Your task to perform on an android device: turn notification dots on Image 0: 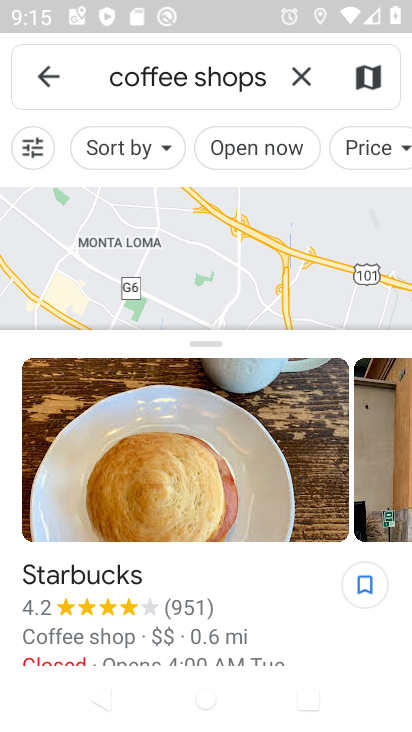
Step 0: press home button
Your task to perform on an android device: turn notification dots on Image 1: 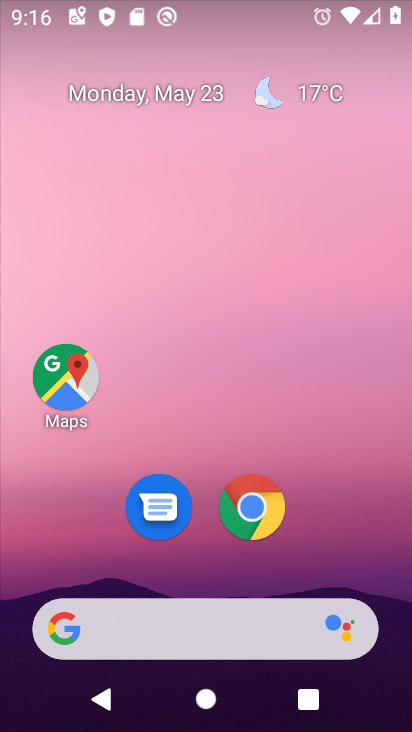
Step 1: drag from (361, 588) to (345, 10)
Your task to perform on an android device: turn notification dots on Image 2: 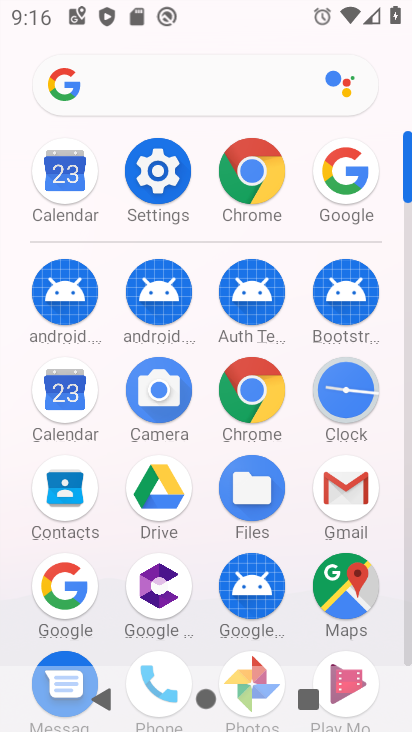
Step 2: click (160, 166)
Your task to perform on an android device: turn notification dots on Image 3: 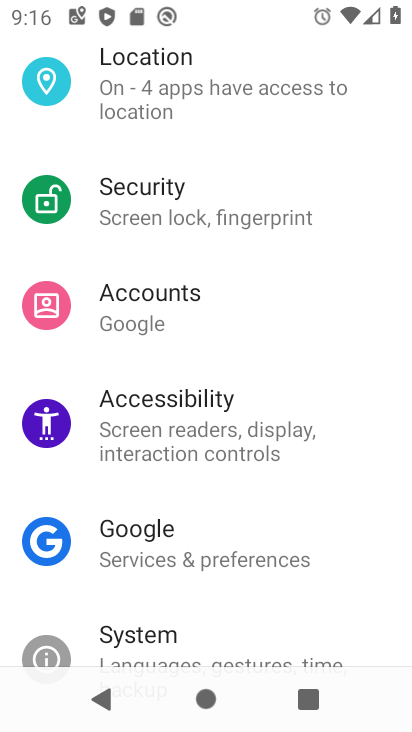
Step 3: drag from (246, 198) to (246, 544)
Your task to perform on an android device: turn notification dots on Image 4: 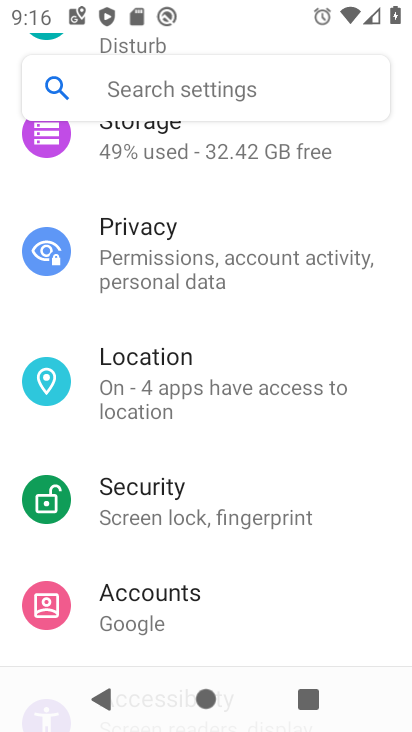
Step 4: drag from (226, 213) to (224, 612)
Your task to perform on an android device: turn notification dots on Image 5: 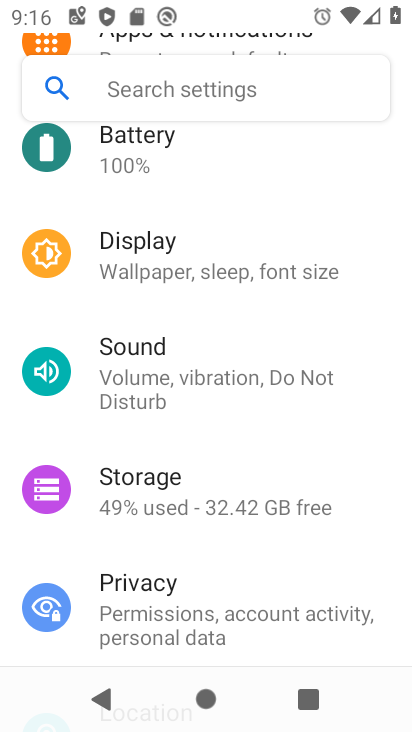
Step 5: drag from (207, 258) to (219, 609)
Your task to perform on an android device: turn notification dots on Image 6: 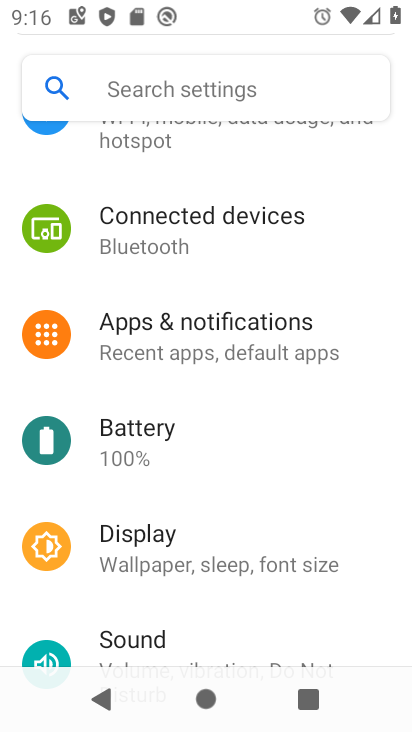
Step 6: click (182, 349)
Your task to perform on an android device: turn notification dots on Image 7: 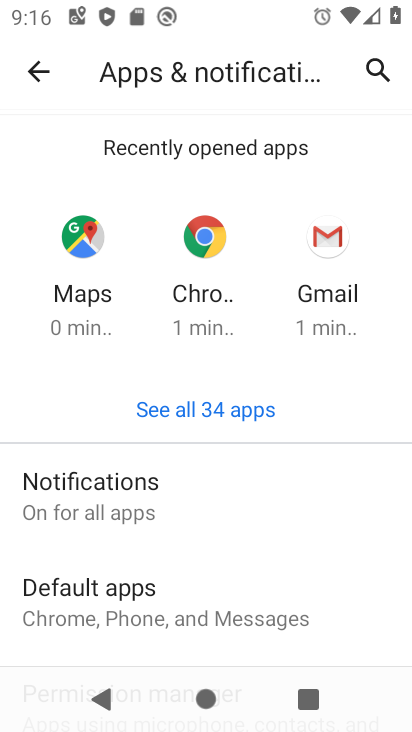
Step 7: click (89, 500)
Your task to perform on an android device: turn notification dots on Image 8: 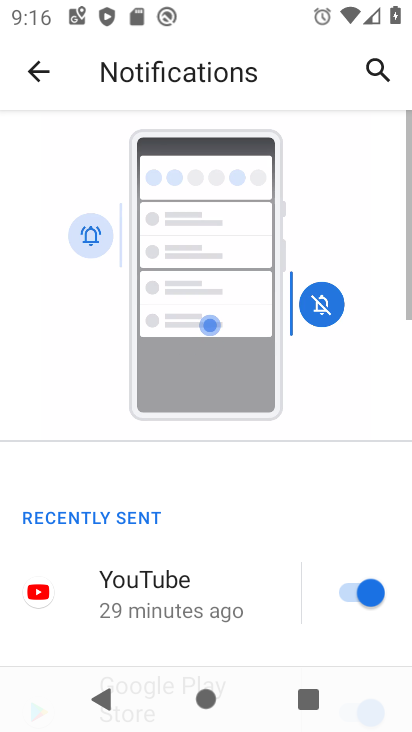
Step 8: drag from (205, 564) to (143, 84)
Your task to perform on an android device: turn notification dots on Image 9: 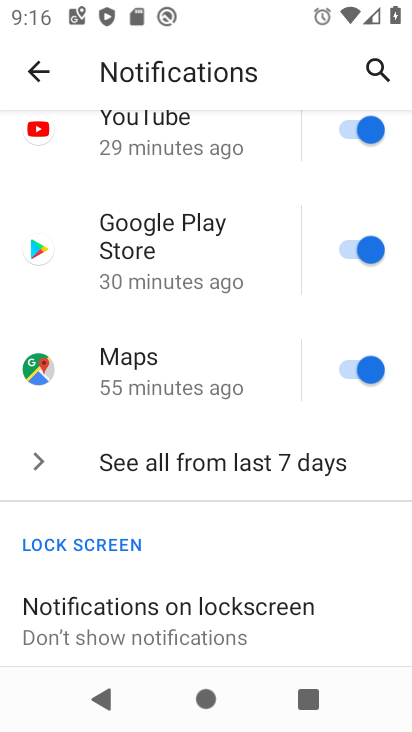
Step 9: drag from (127, 520) to (113, 138)
Your task to perform on an android device: turn notification dots on Image 10: 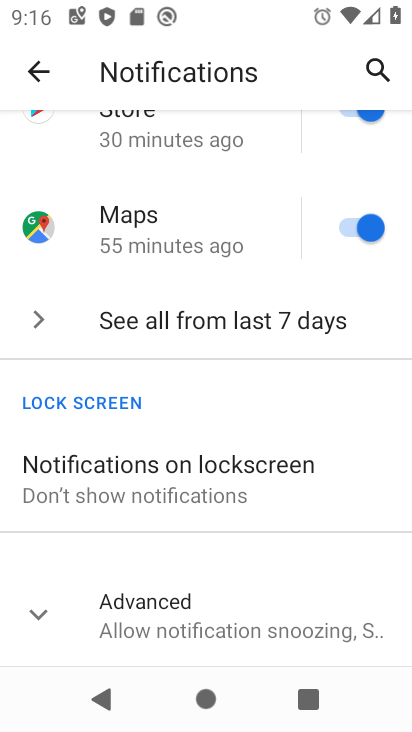
Step 10: click (39, 620)
Your task to perform on an android device: turn notification dots on Image 11: 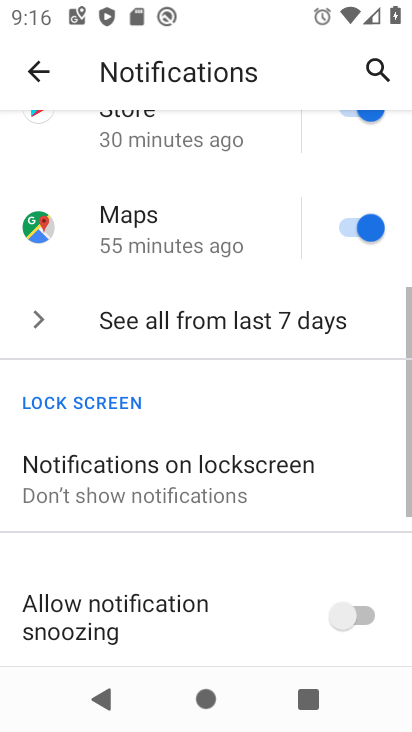
Step 11: task complete